Your task to perform on an android device: How big is a dinosaur? Image 0: 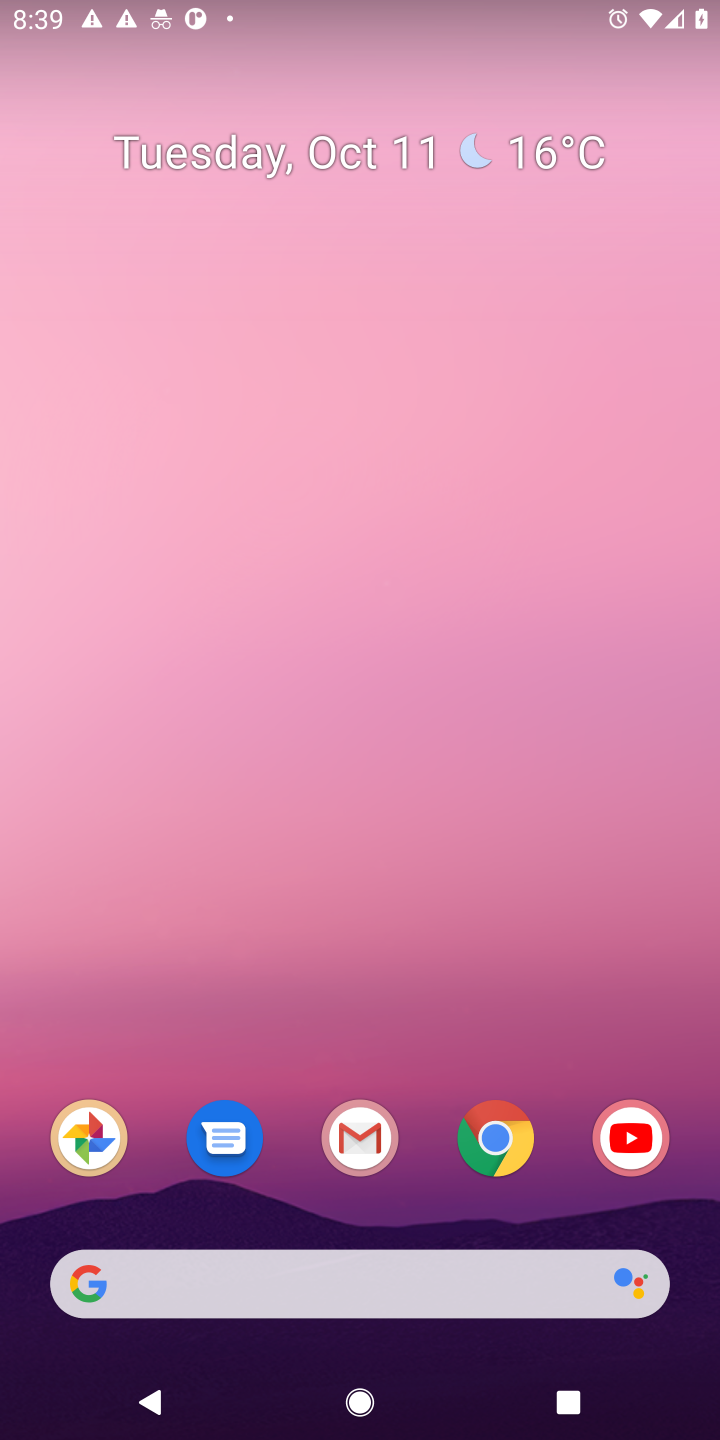
Step 0: click (314, 1272)
Your task to perform on an android device: How big is a dinosaur? Image 1: 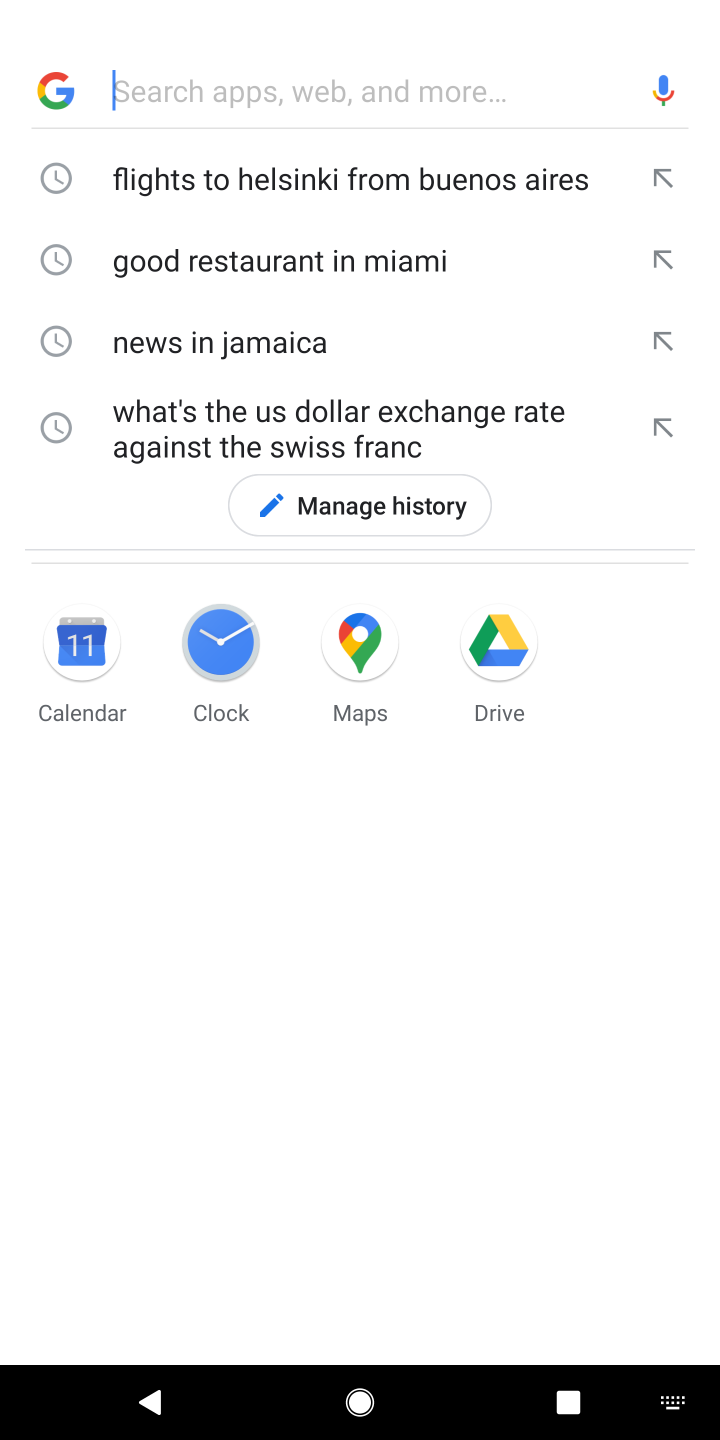
Step 1: type "how big is a dinosaur"
Your task to perform on an android device: How big is a dinosaur? Image 2: 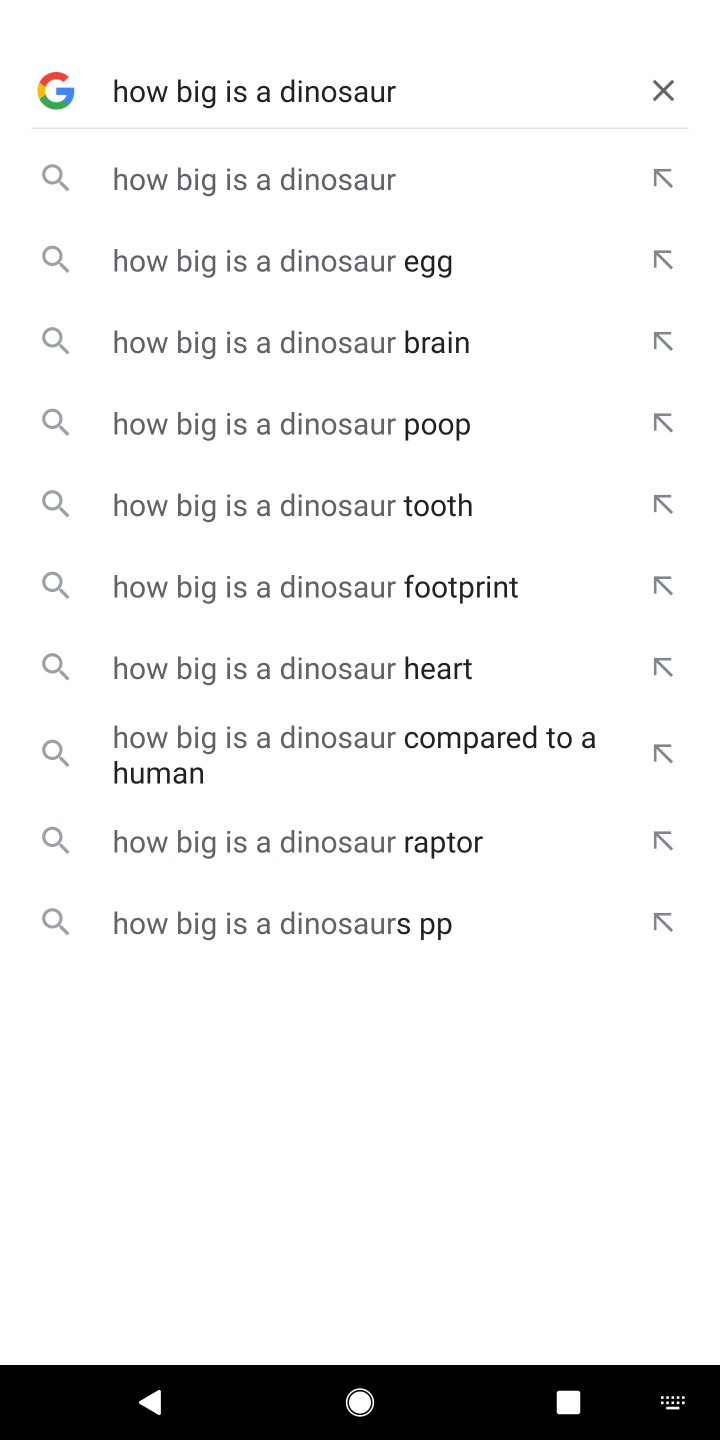
Step 2: click (306, 170)
Your task to perform on an android device: How big is a dinosaur? Image 3: 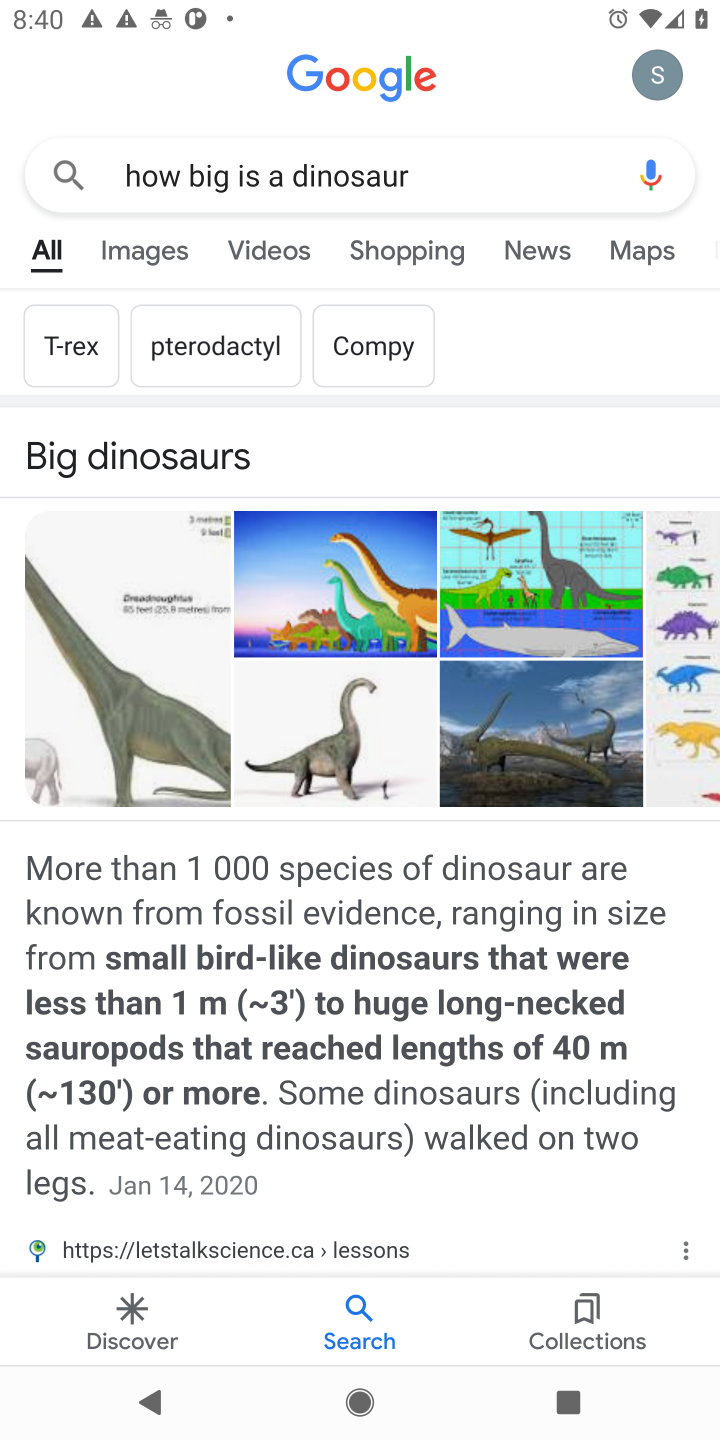
Step 3: task complete